Your task to perform on an android device: Open calendar and show me the third week of next month Image 0: 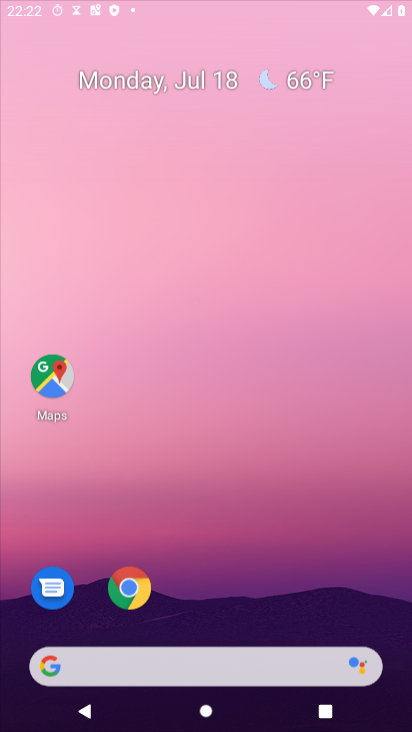
Step 0: press home button
Your task to perform on an android device: Open calendar and show me the third week of next month Image 1: 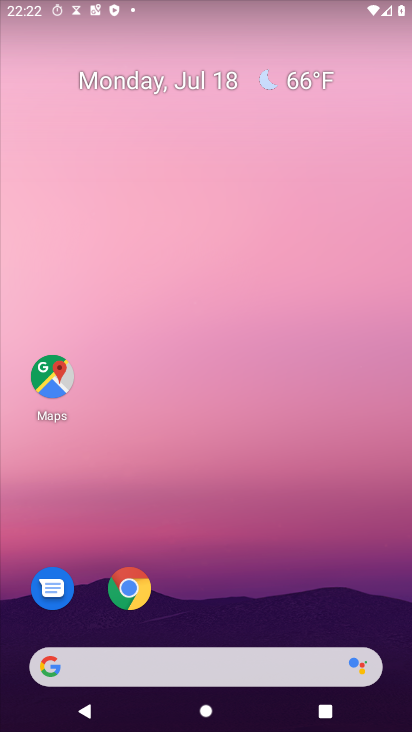
Step 1: drag from (208, 654) to (379, 208)
Your task to perform on an android device: Open calendar and show me the third week of next month Image 2: 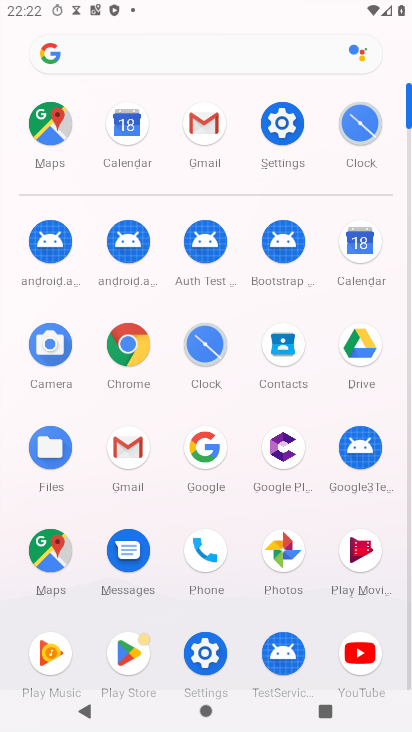
Step 2: click (359, 258)
Your task to perform on an android device: Open calendar and show me the third week of next month Image 3: 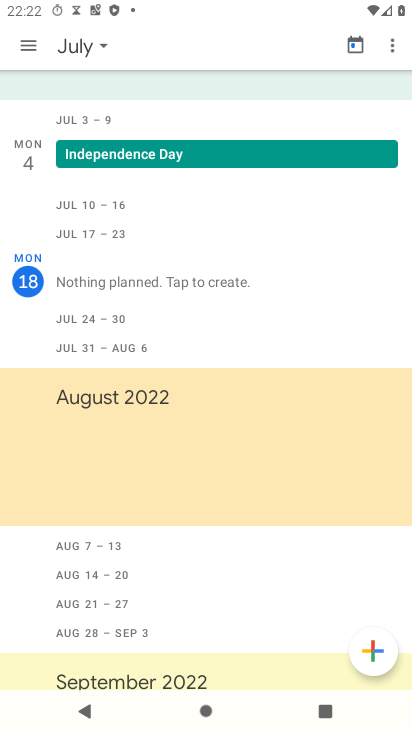
Step 3: click (66, 34)
Your task to perform on an android device: Open calendar and show me the third week of next month Image 4: 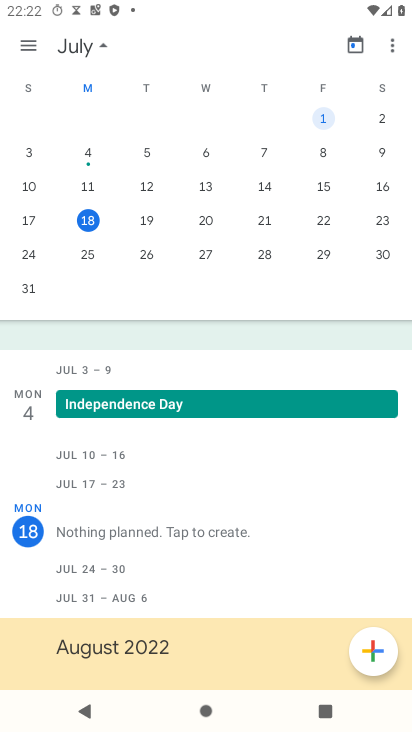
Step 4: drag from (364, 242) to (127, 205)
Your task to perform on an android device: Open calendar and show me the third week of next month Image 5: 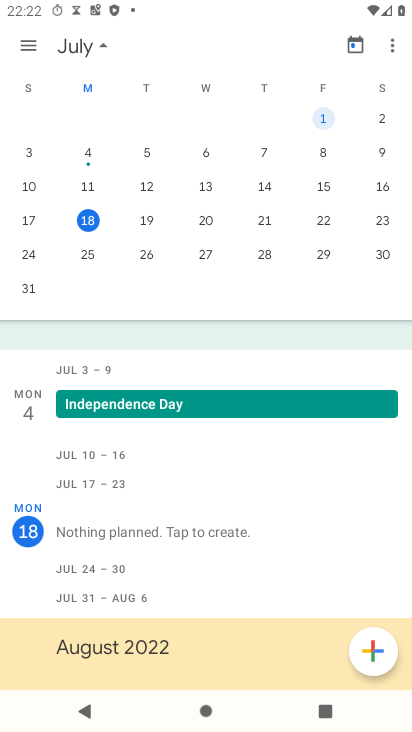
Step 5: drag from (363, 244) to (40, 262)
Your task to perform on an android device: Open calendar and show me the third week of next month Image 6: 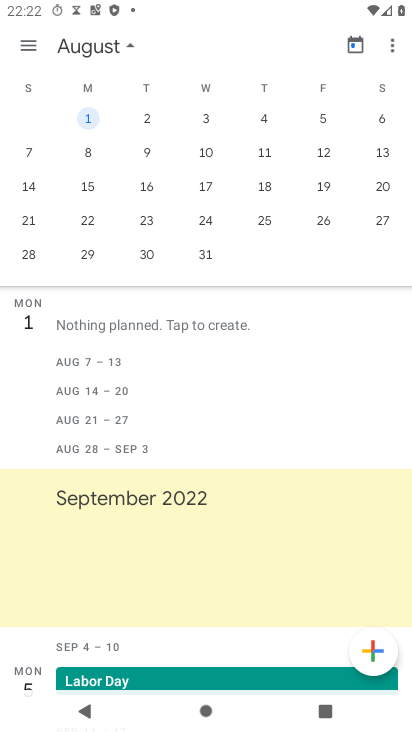
Step 6: drag from (391, 163) to (291, 178)
Your task to perform on an android device: Open calendar and show me the third week of next month Image 7: 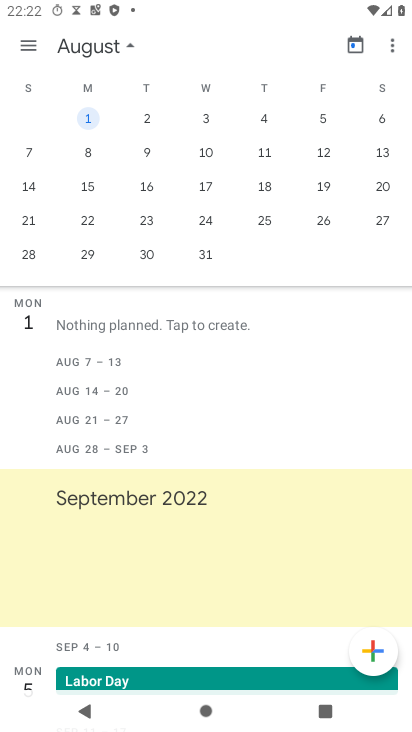
Step 7: click (22, 183)
Your task to perform on an android device: Open calendar and show me the third week of next month Image 8: 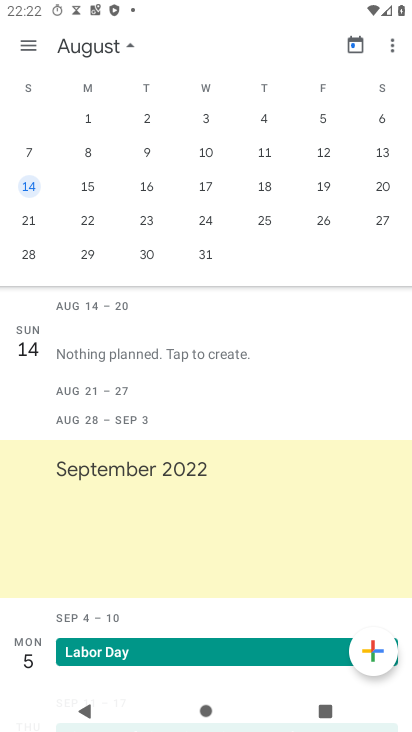
Step 8: click (31, 46)
Your task to perform on an android device: Open calendar and show me the third week of next month Image 9: 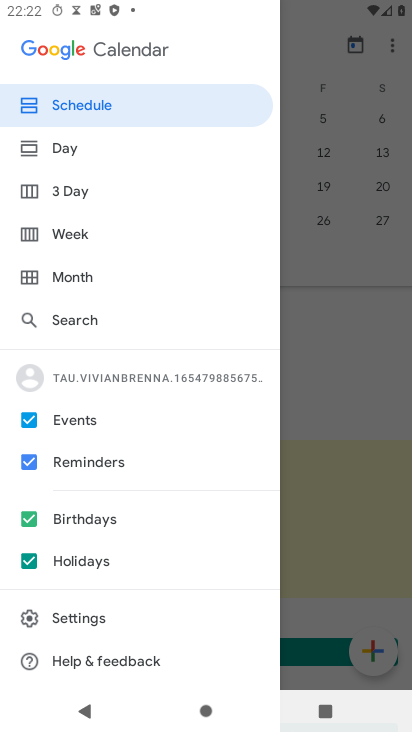
Step 9: click (70, 244)
Your task to perform on an android device: Open calendar and show me the third week of next month Image 10: 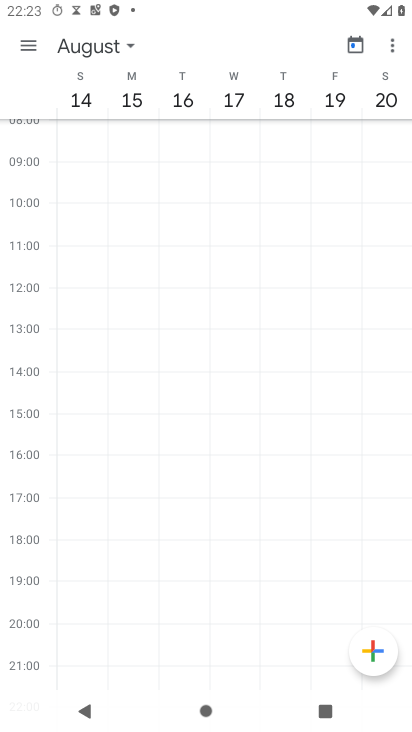
Step 10: task complete